Your task to perform on an android device: read, delete, or share a saved page in the chrome app Image 0: 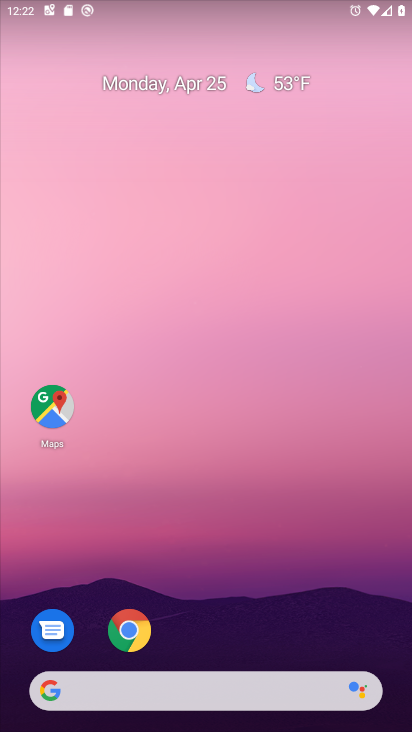
Step 0: drag from (191, 592) to (233, 155)
Your task to perform on an android device: read, delete, or share a saved page in the chrome app Image 1: 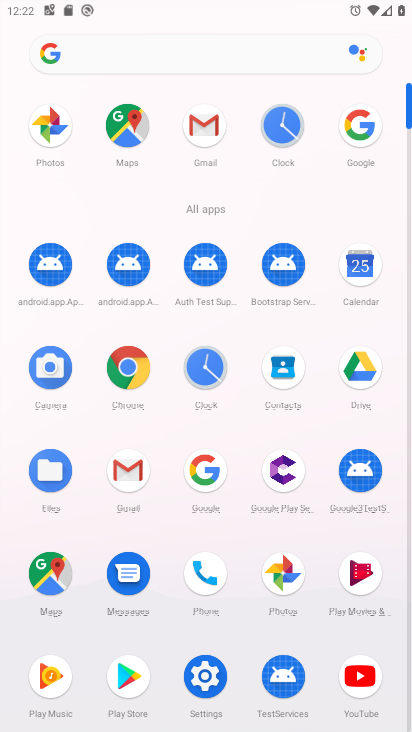
Step 1: click (125, 367)
Your task to perform on an android device: read, delete, or share a saved page in the chrome app Image 2: 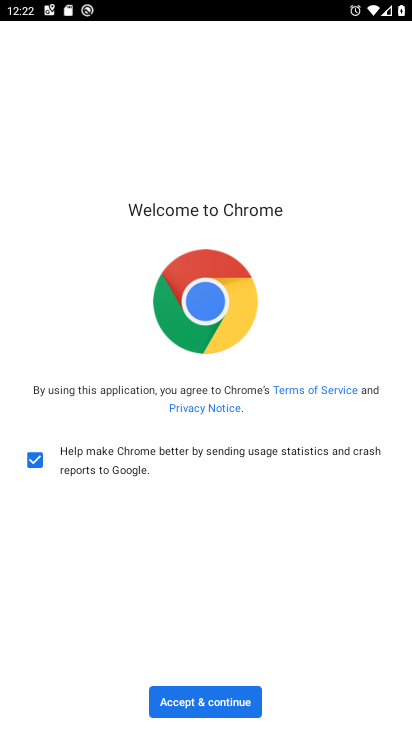
Step 2: click (231, 684)
Your task to perform on an android device: read, delete, or share a saved page in the chrome app Image 3: 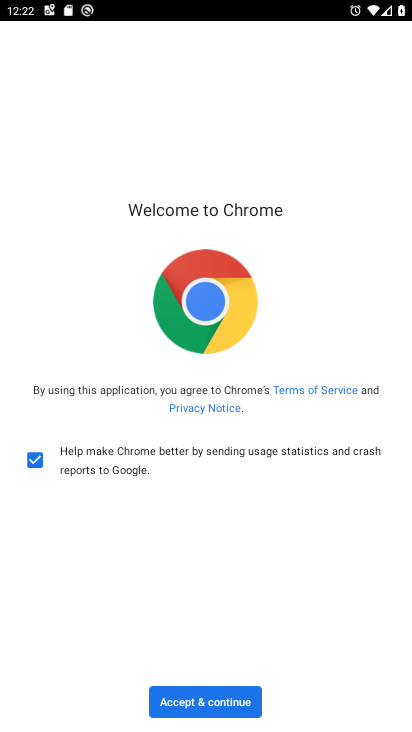
Step 3: click (223, 702)
Your task to perform on an android device: read, delete, or share a saved page in the chrome app Image 4: 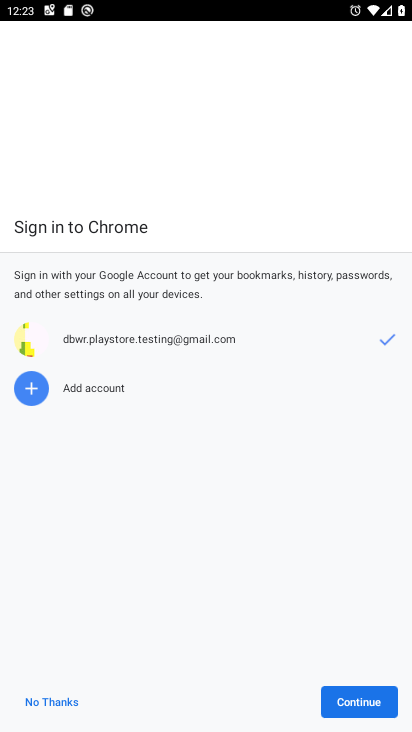
Step 4: click (350, 701)
Your task to perform on an android device: read, delete, or share a saved page in the chrome app Image 5: 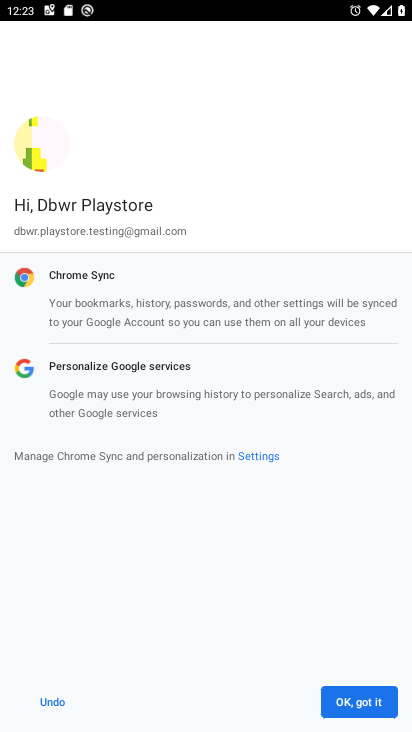
Step 5: click (350, 701)
Your task to perform on an android device: read, delete, or share a saved page in the chrome app Image 6: 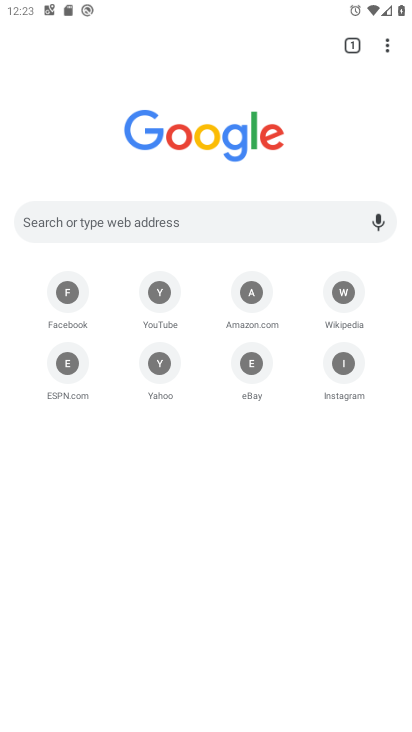
Step 6: task complete